Your task to perform on an android device: Go to notification settings Image 0: 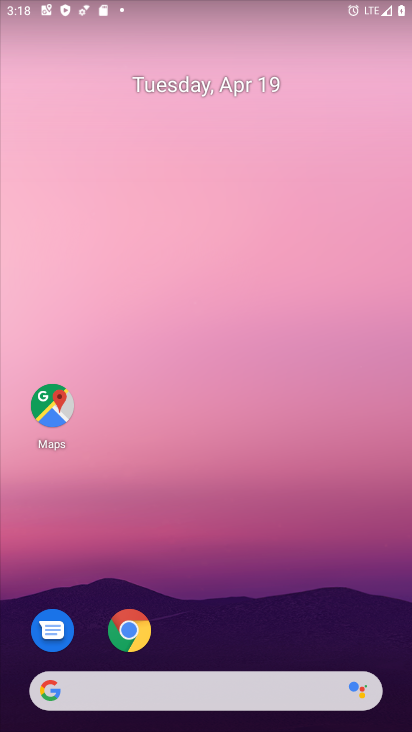
Step 0: drag from (203, 727) to (186, 70)
Your task to perform on an android device: Go to notification settings Image 1: 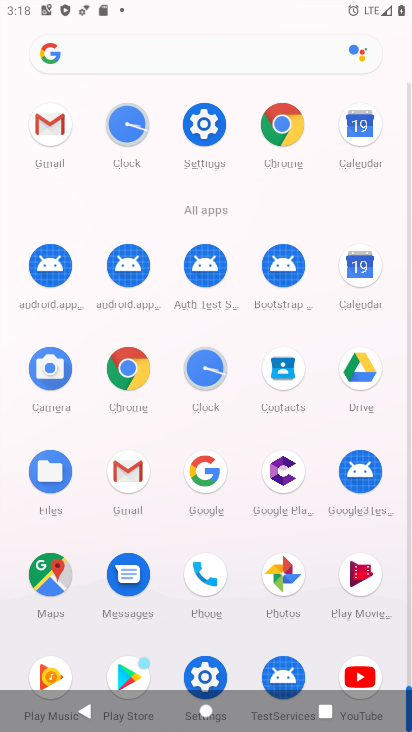
Step 1: click (202, 125)
Your task to perform on an android device: Go to notification settings Image 2: 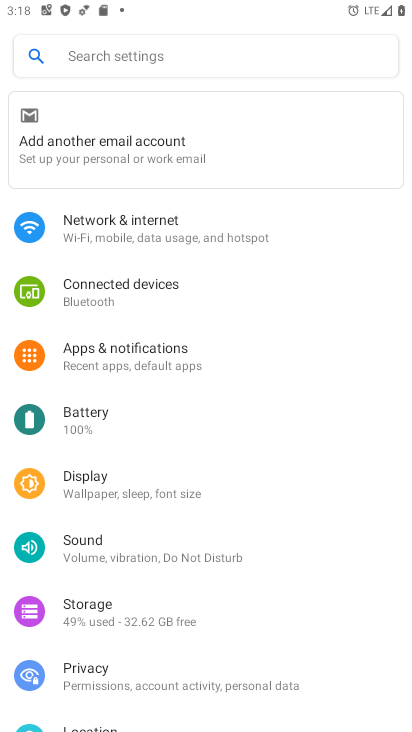
Step 2: click (114, 360)
Your task to perform on an android device: Go to notification settings Image 3: 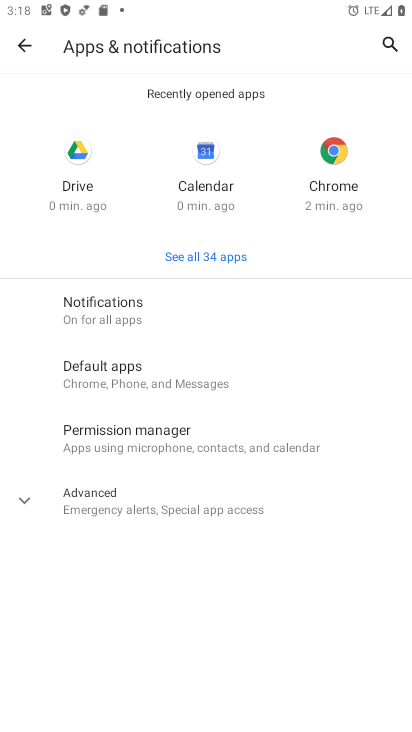
Step 3: click (98, 309)
Your task to perform on an android device: Go to notification settings Image 4: 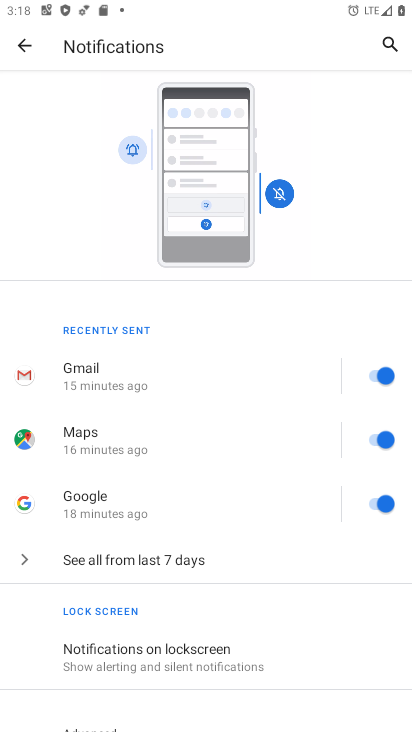
Step 4: task complete